Your task to perform on an android device: turn on notifications settings in the gmail app Image 0: 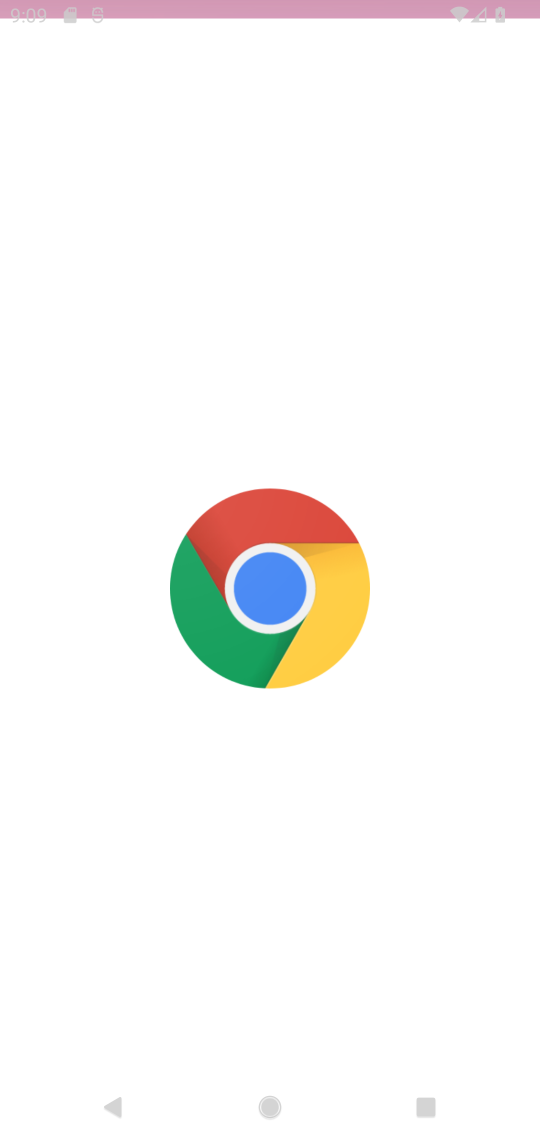
Step 0: press home button
Your task to perform on an android device: turn on notifications settings in the gmail app Image 1: 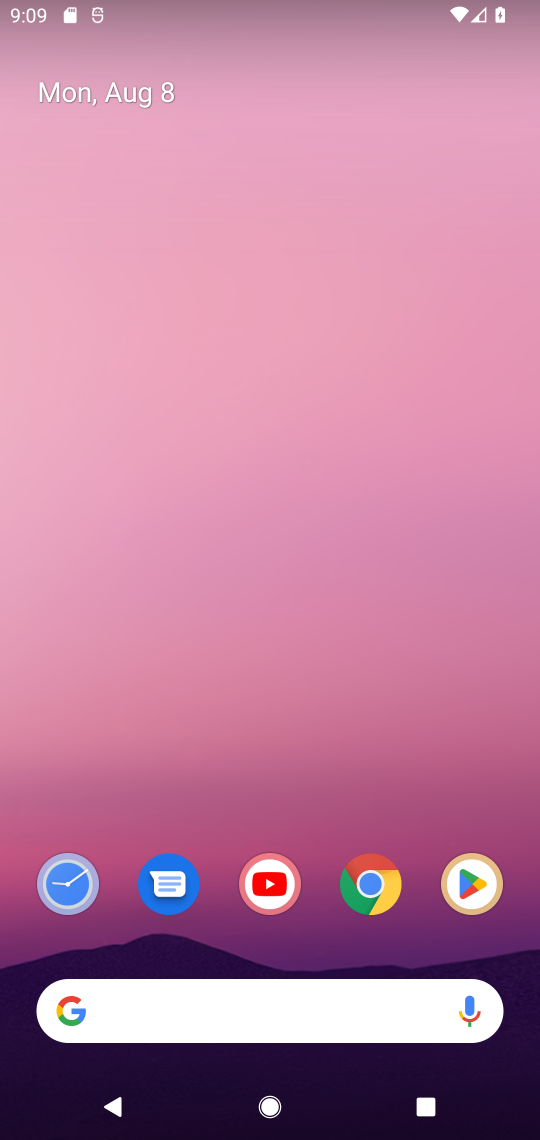
Step 1: drag from (239, 776) to (220, 114)
Your task to perform on an android device: turn on notifications settings in the gmail app Image 2: 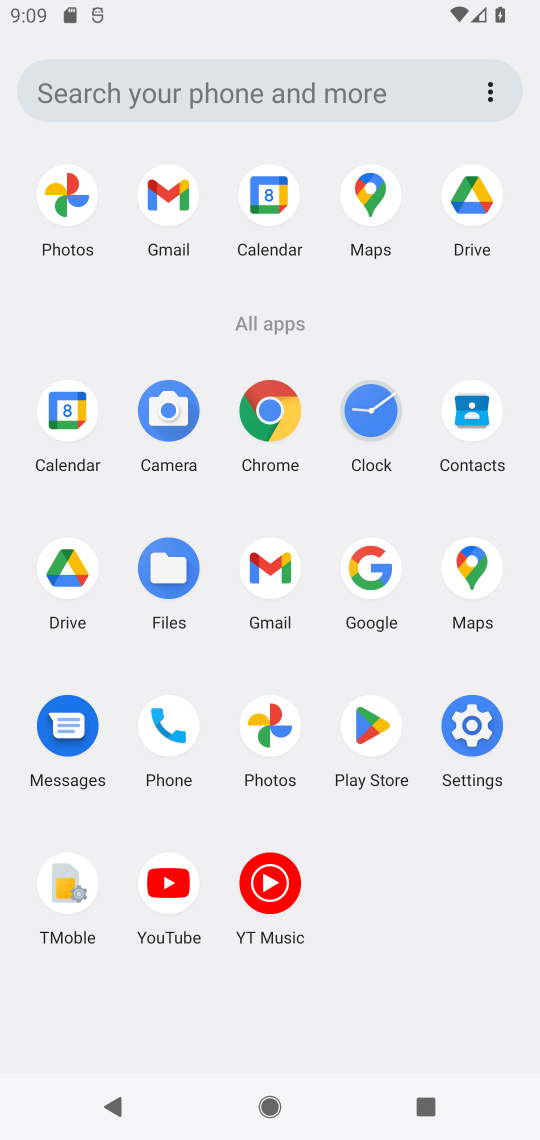
Step 2: click (161, 191)
Your task to perform on an android device: turn on notifications settings in the gmail app Image 3: 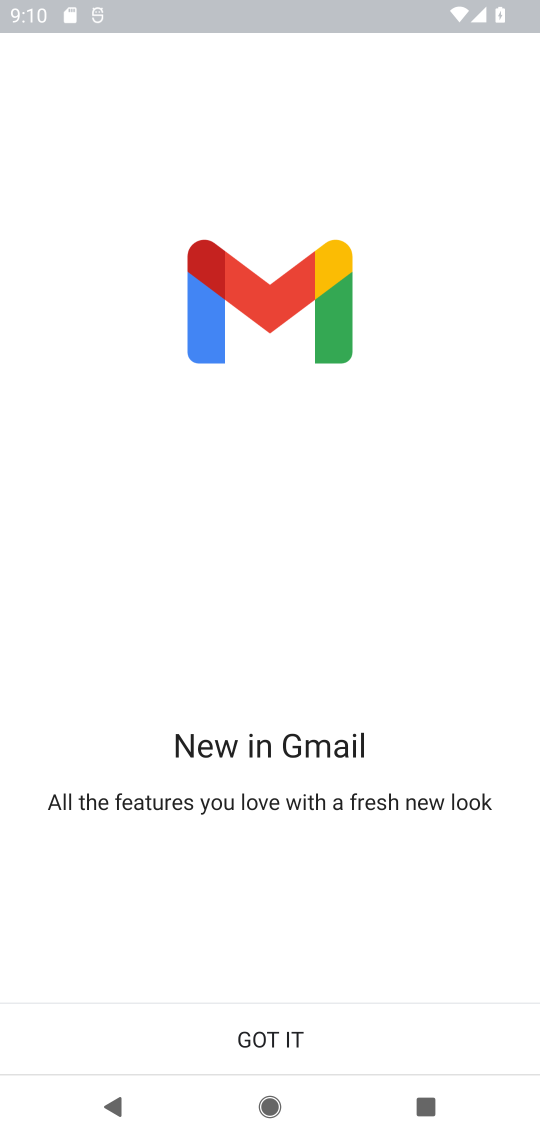
Step 3: click (288, 1036)
Your task to perform on an android device: turn on notifications settings in the gmail app Image 4: 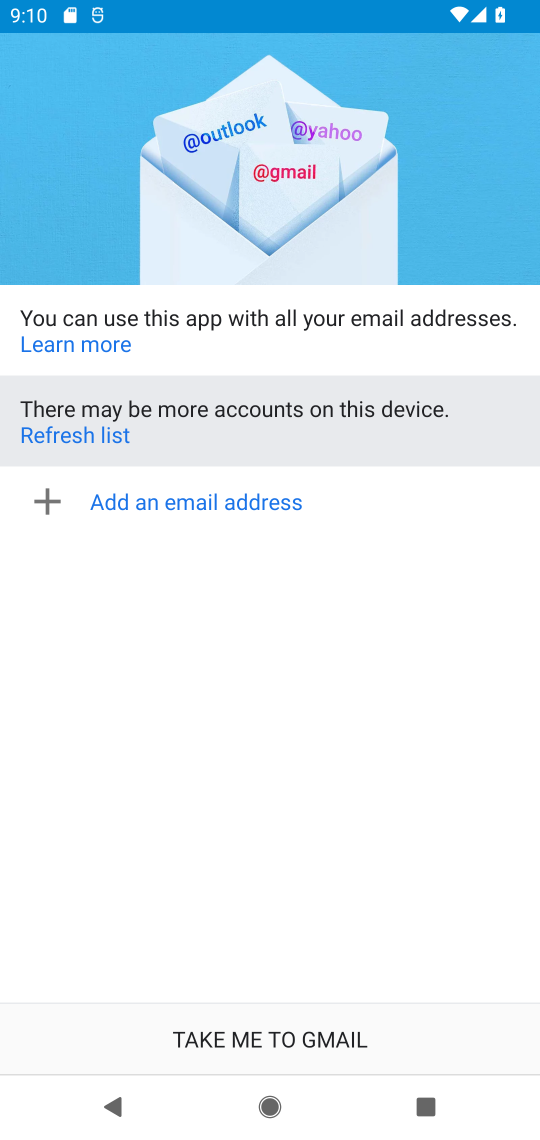
Step 4: click (288, 1036)
Your task to perform on an android device: turn on notifications settings in the gmail app Image 5: 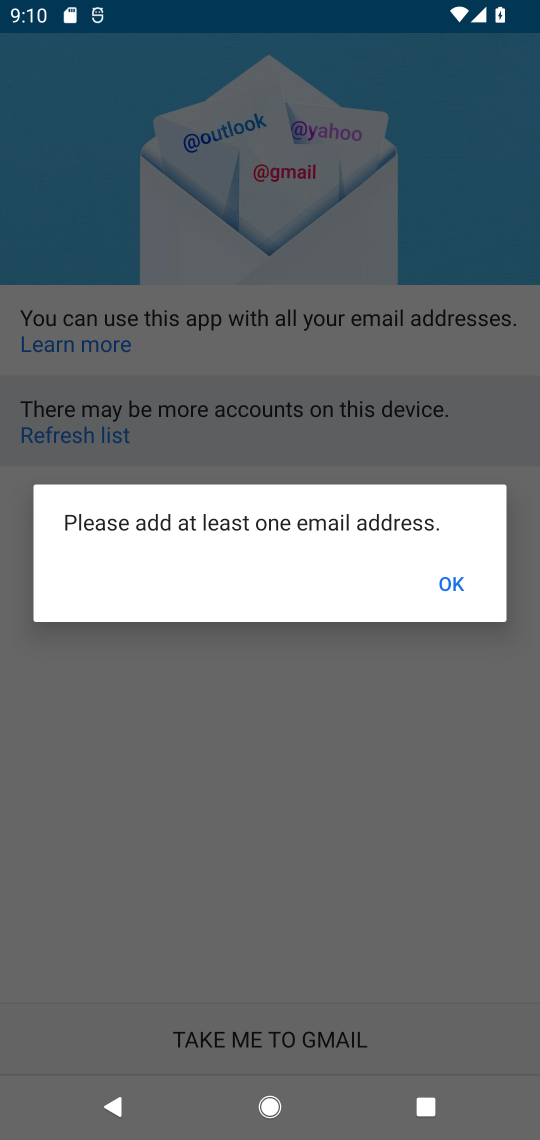
Step 5: click (447, 580)
Your task to perform on an android device: turn on notifications settings in the gmail app Image 6: 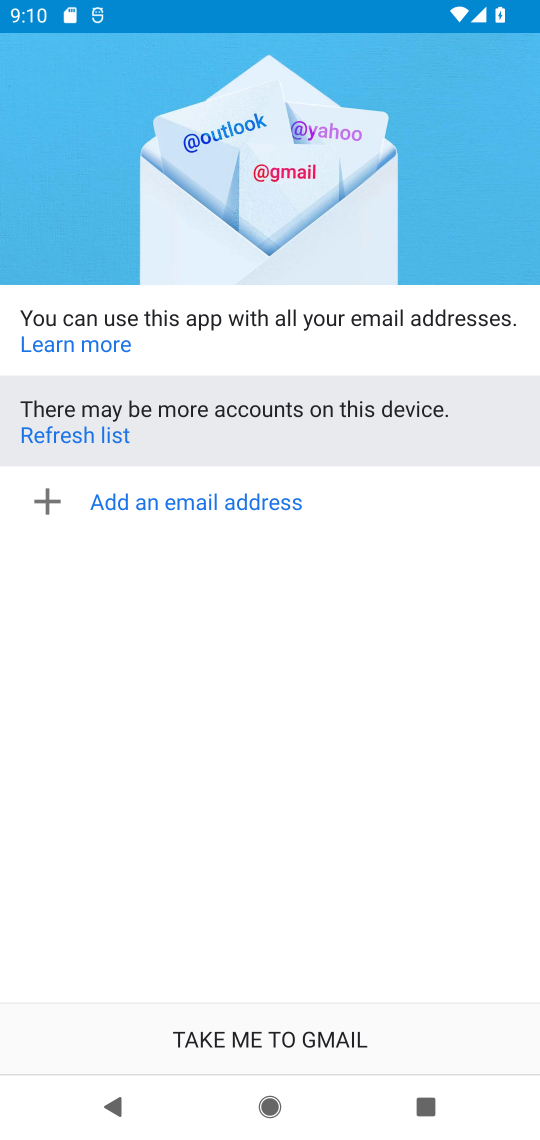
Step 6: task complete